Your task to perform on an android device: turn vacation reply on in the gmail app Image 0: 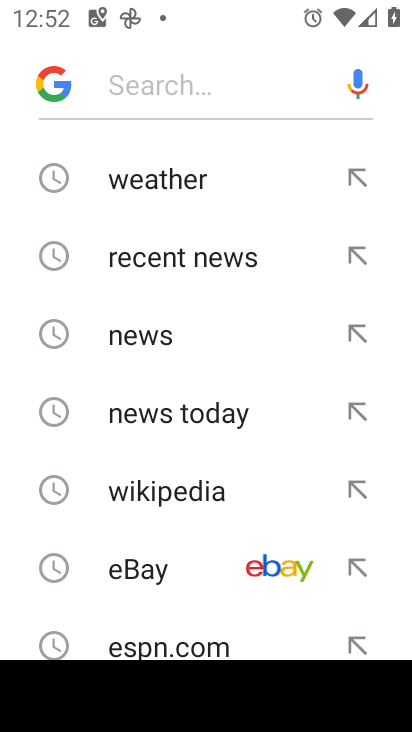
Step 0: press home button
Your task to perform on an android device: turn vacation reply on in the gmail app Image 1: 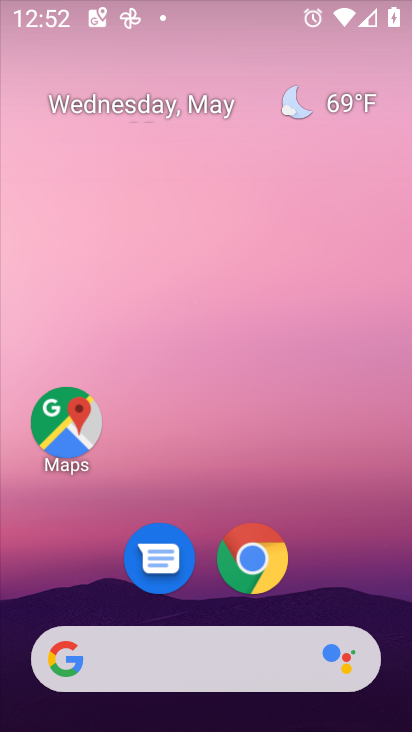
Step 1: drag from (358, 598) to (313, 2)
Your task to perform on an android device: turn vacation reply on in the gmail app Image 2: 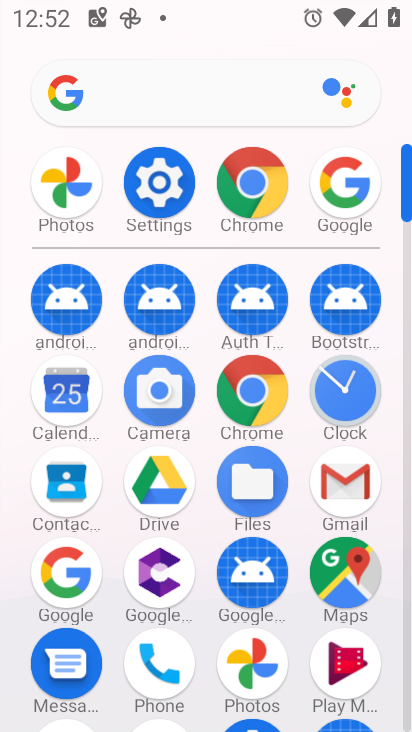
Step 2: click (332, 475)
Your task to perform on an android device: turn vacation reply on in the gmail app Image 3: 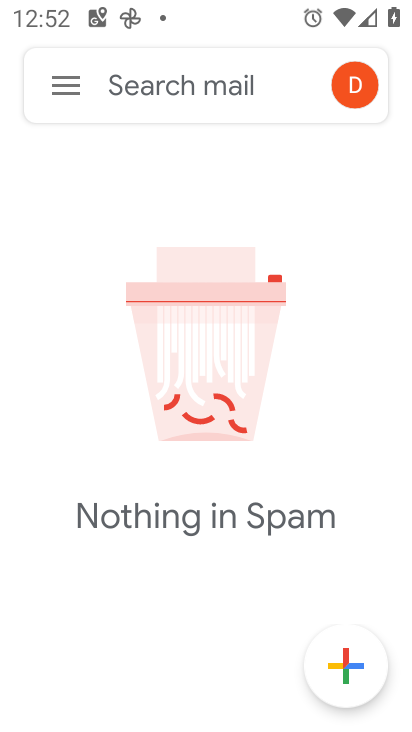
Step 3: click (25, 93)
Your task to perform on an android device: turn vacation reply on in the gmail app Image 4: 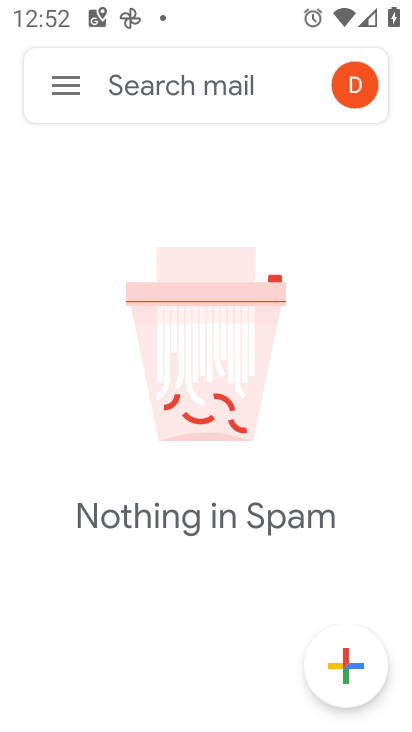
Step 4: click (50, 77)
Your task to perform on an android device: turn vacation reply on in the gmail app Image 5: 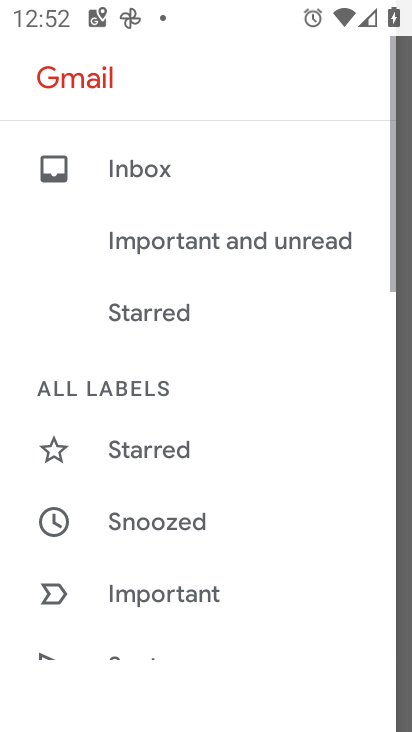
Step 5: drag from (203, 621) to (211, 88)
Your task to perform on an android device: turn vacation reply on in the gmail app Image 6: 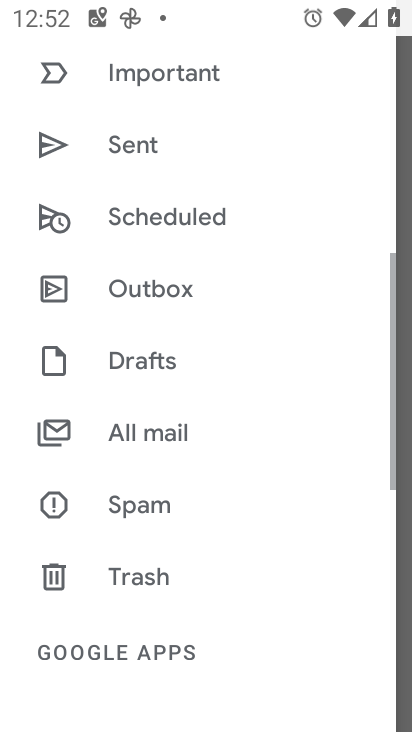
Step 6: drag from (157, 601) to (162, 116)
Your task to perform on an android device: turn vacation reply on in the gmail app Image 7: 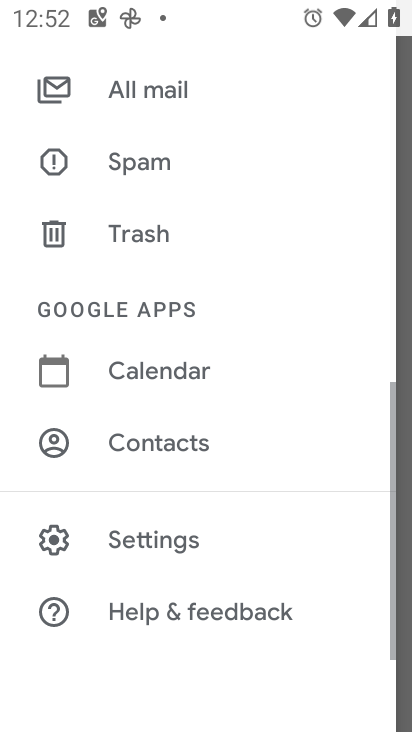
Step 7: click (196, 554)
Your task to perform on an android device: turn vacation reply on in the gmail app Image 8: 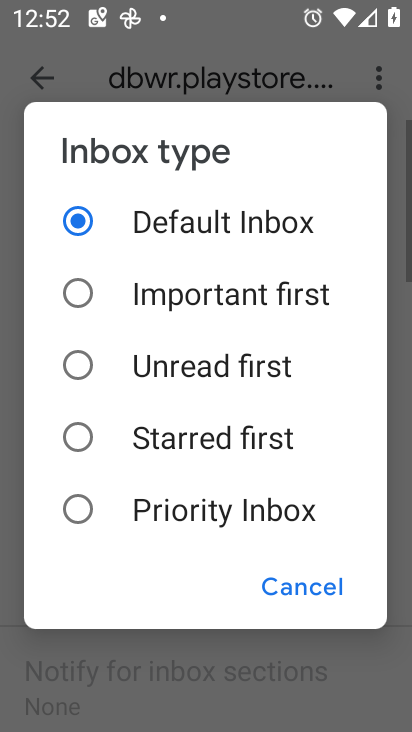
Step 8: click (286, 585)
Your task to perform on an android device: turn vacation reply on in the gmail app Image 9: 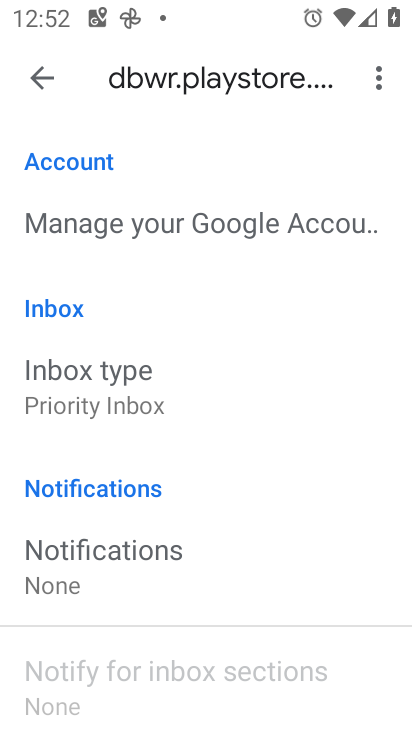
Step 9: drag from (184, 641) to (167, 99)
Your task to perform on an android device: turn vacation reply on in the gmail app Image 10: 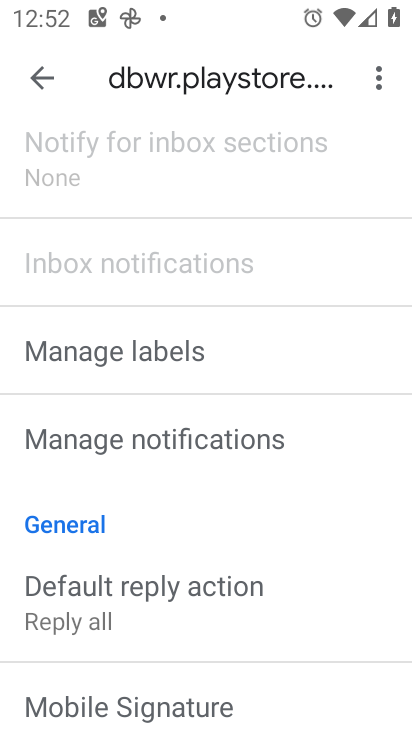
Step 10: drag from (158, 645) to (209, 124)
Your task to perform on an android device: turn vacation reply on in the gmail app Image 11: 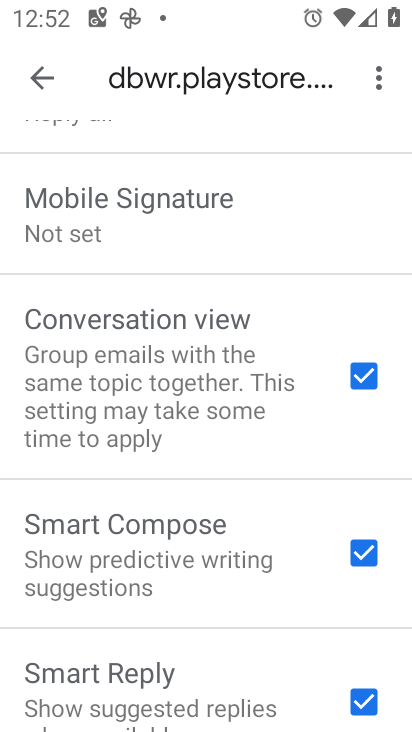
Step 11: drag from (184, 671) to (191, 101)
Your task to perform on an android device: turn vacation reply on in the gmail app Image 12: 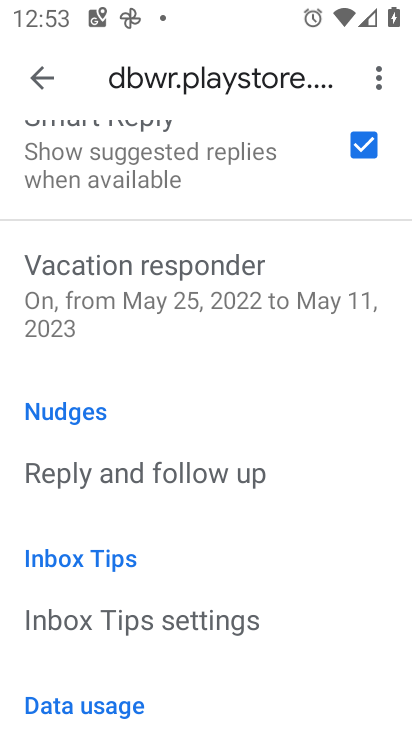
Step 12: click (196, 324)
Your task to perform on an android device: turn vacation reply on in the gmail app Image 13: 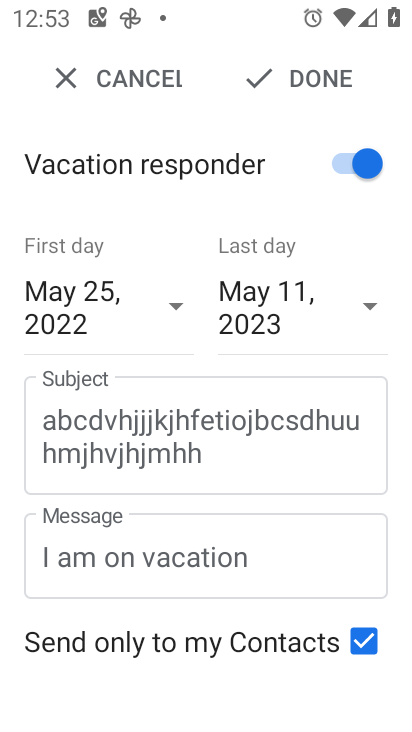
Step 13: task complete